Your task to perform on an android device: Open Chrome and go to settings Image 0: 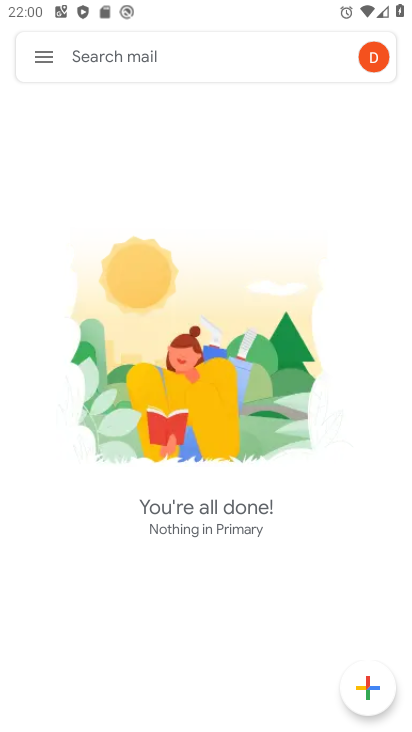
Step 0: press home button
Your task to perform on an android device: Open Chrome and go to settings Image 1: 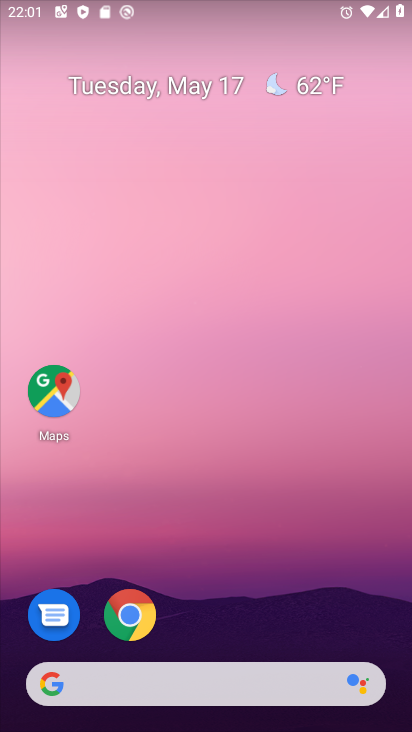
Step 1: click (122, 624)
Your task to perform on an android device: Open Chrome and go to settings Image 2: 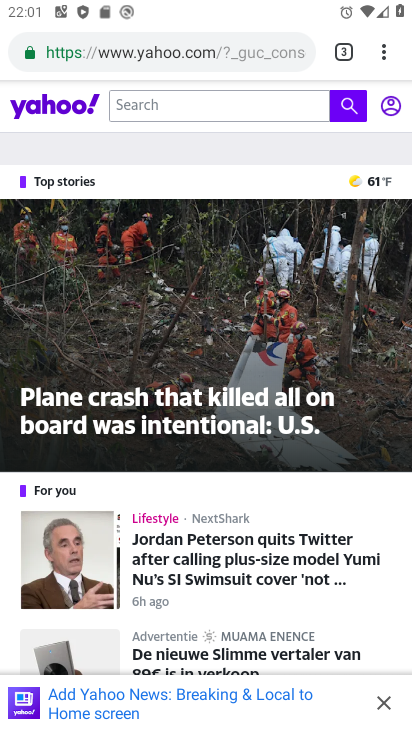
Step 2: task complete